Your task to perform on an android device: turn on wifi Image 0: 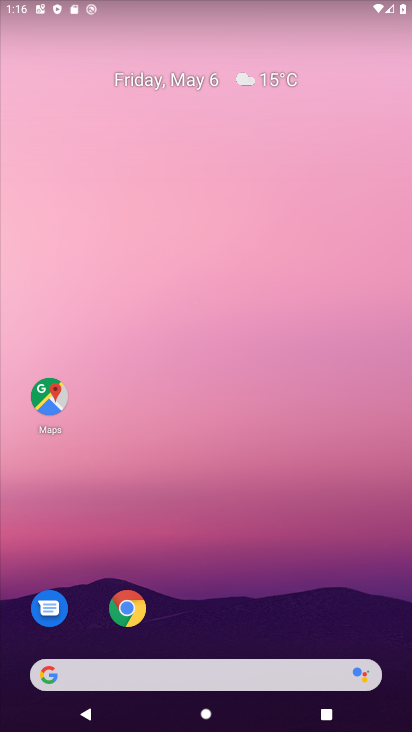
Step 0: drag from (354, 28) to (315, 728)
Your task to perform on an android device: turn on wifi Image 1: 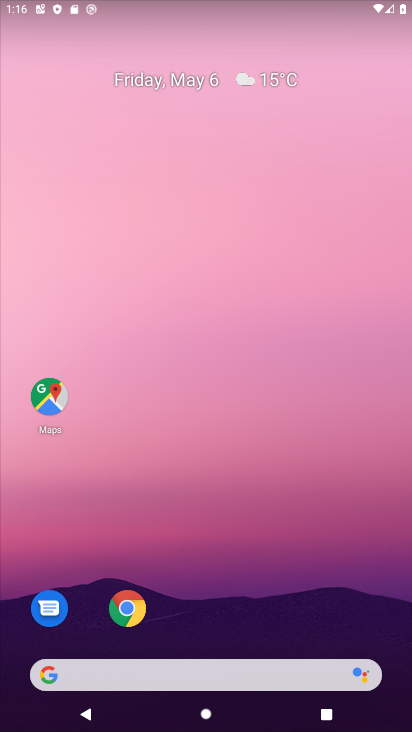
Step 1: task complete